Your task to perform on an android device: open device folders in google photos Image 0: 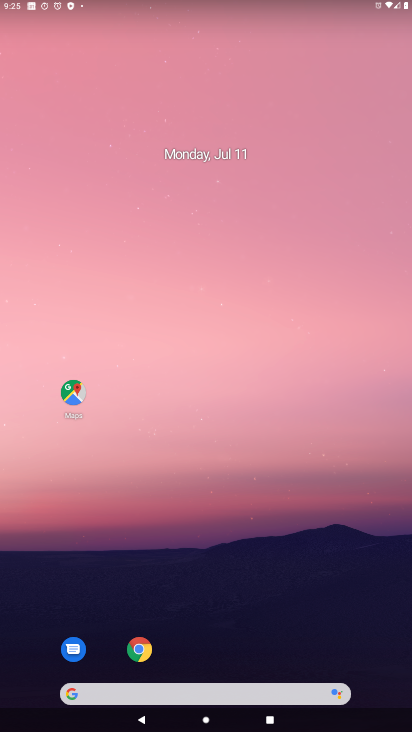
Step 0: drag from (209, 699) to (264, 308)
Your task to perform on an android device: open device folders in google photos Image 1: 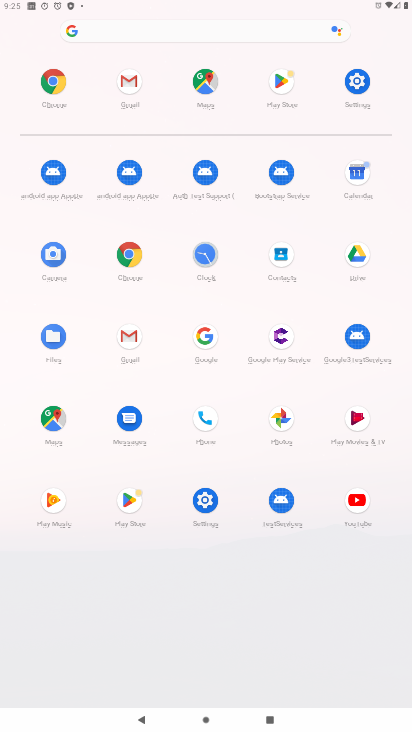
Step 1: click (279, 419)
Your task to perform on an android device: open device folders in google photos Image 2: 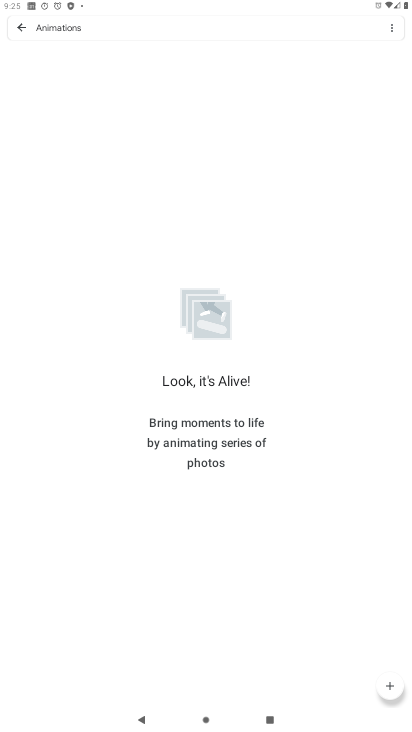
Step 2: press back button
Your task to perform on an android device: open device folders in google photos Image 3: 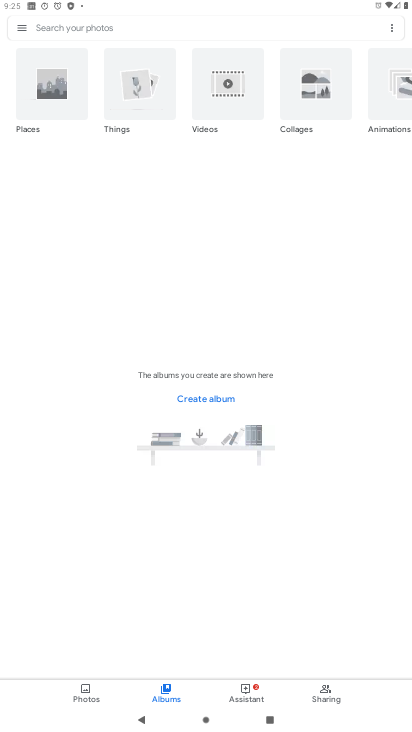
Step 3: click (25, 33)
Your task to perform on an android device: open device folders in google photos Image 4: 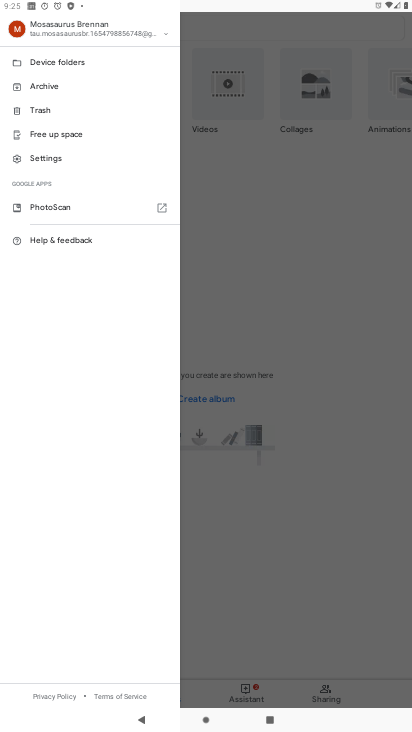
Step 4: click (52, 61)
Your task to perform on an android device: open device folders in google photos Image 5: 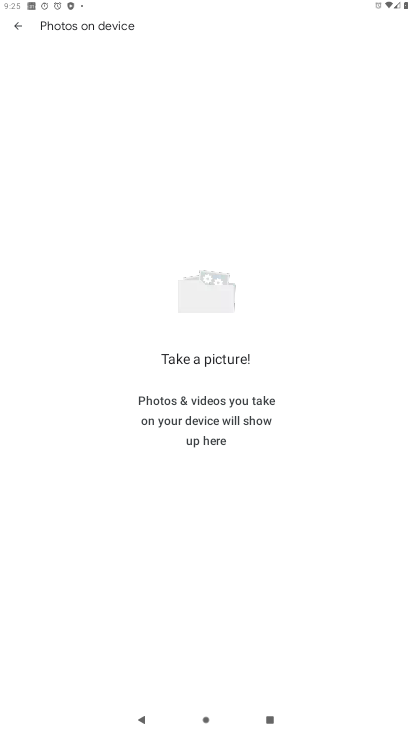
Step 5: task complete